Your task to perform on an android device: Go to network settings Image 0: 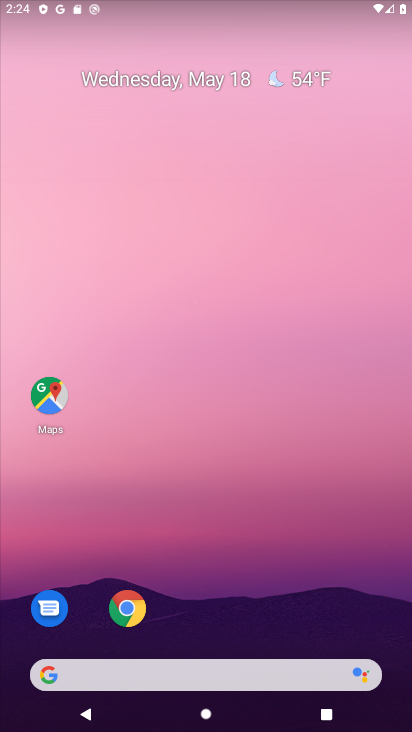
Step 0: drag from (325, 618) to (302, 3)
Your task to perform on an android device: Go to network settings Image 1: 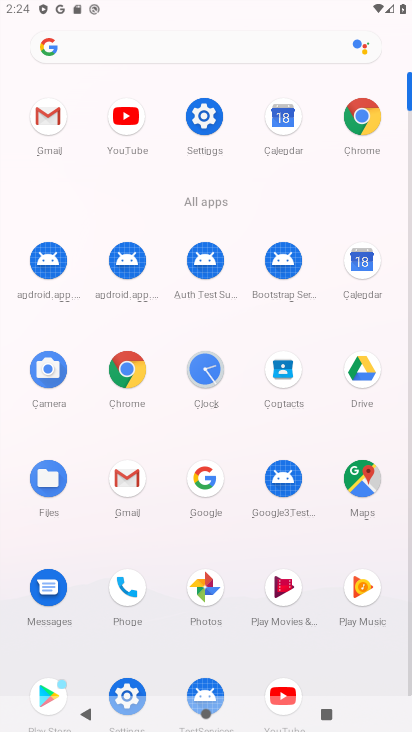
Step 1: click (219, 137)
Your task to perform on an android device: Go to network settings Image 2: 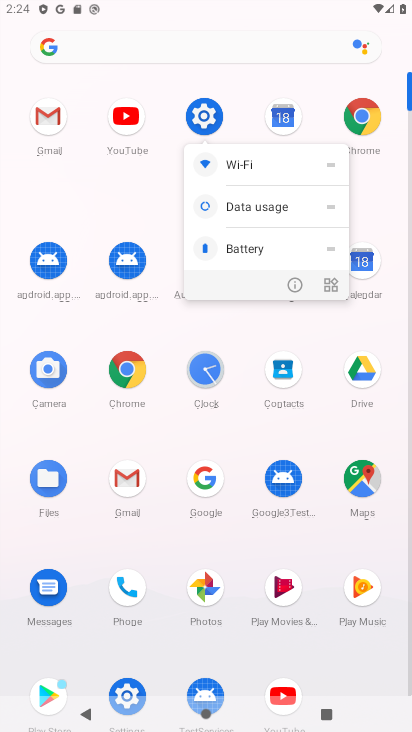
Step 2: click (204, 110)
Your task to perform on an android device: Go to network settings Image 3: 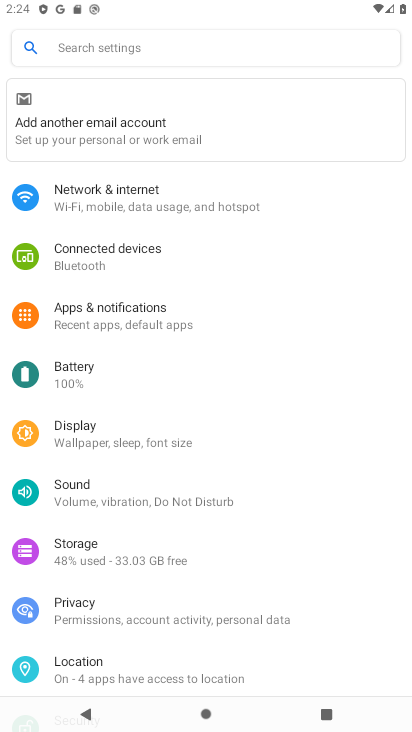
Step 3: click (142, 192)
Your task to perform on an android device: Go to network settings Image 4: 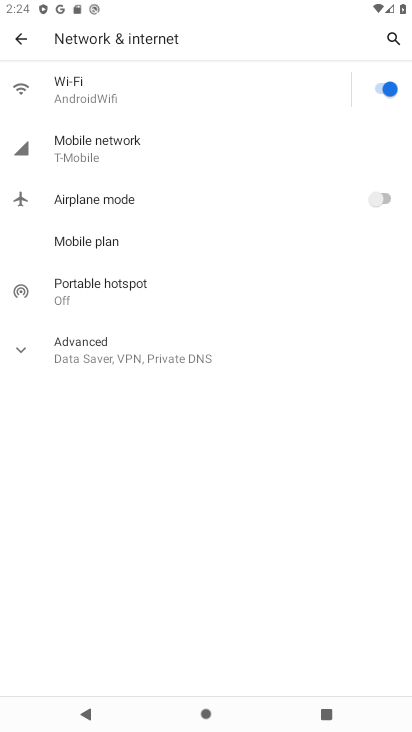
Step 4: click (122, 145)
Your task to perform on an android device: Go to network settings Image 5: 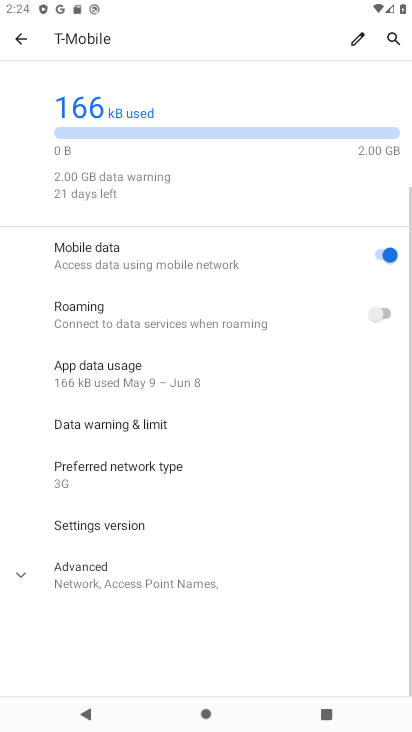
Step 5: click (15, 581)
Your task to perform on an android device: Go to network settings Image 6: 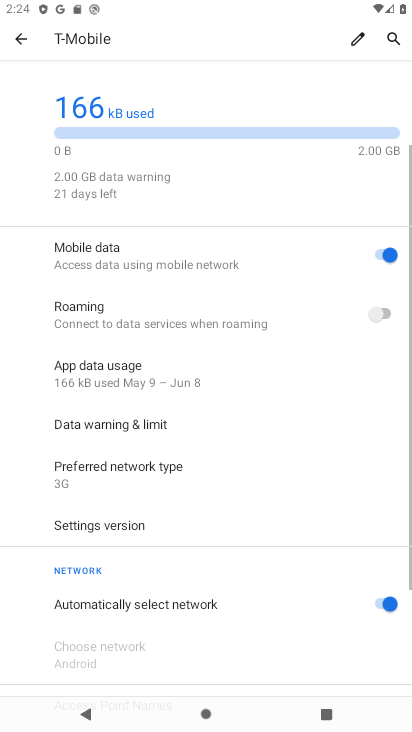
Step 6: task complete